Your task to perform on an android device: What's on my calendar tomorrow? Image 0: 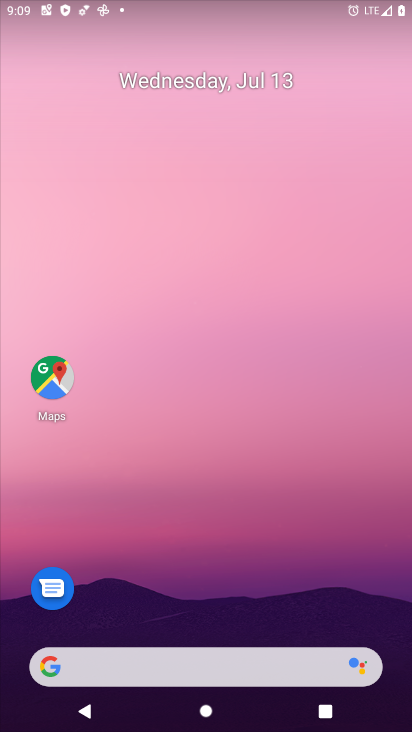
Step 0: drag from (262, 468) to (385, 15)
Your task to perform on an android device: What's on my calendar tomorrow? Image 1: 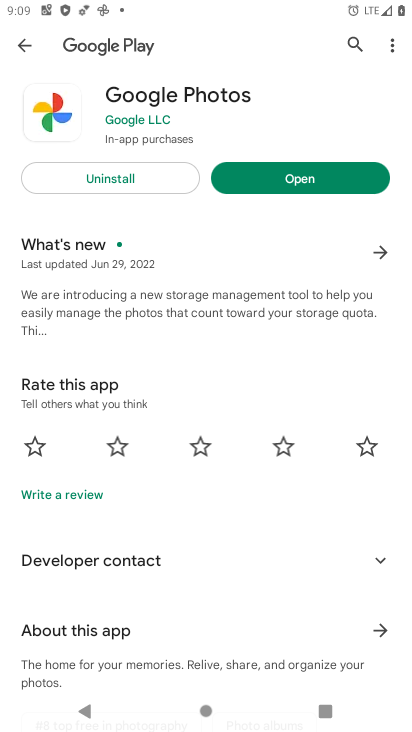
Step 1: press home button
Your task to perform on an android device: What's on my calendar tomorrow? Image 2: 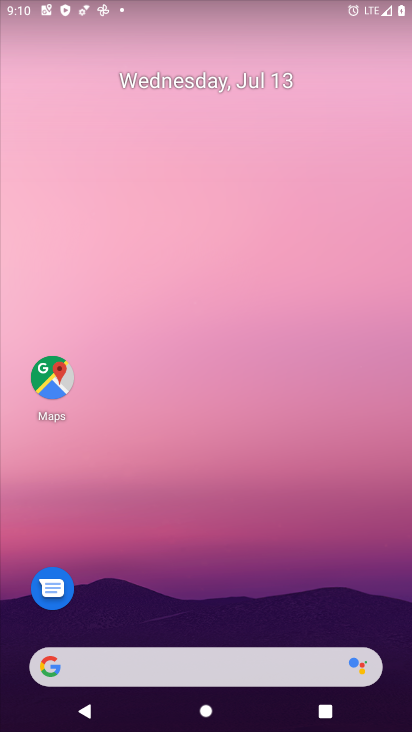
Step 2: drag from (259, 691) to (170, 1)
Your task to perform on an android device: What's on my calendar tomorrow? Image 3: 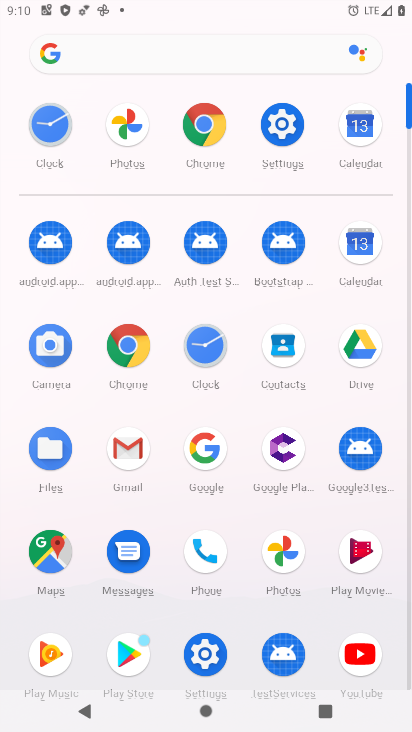
Step 3: click (359, 250)
Your task to perform on an android device: What's on my calendar tomorrow? Image 4: 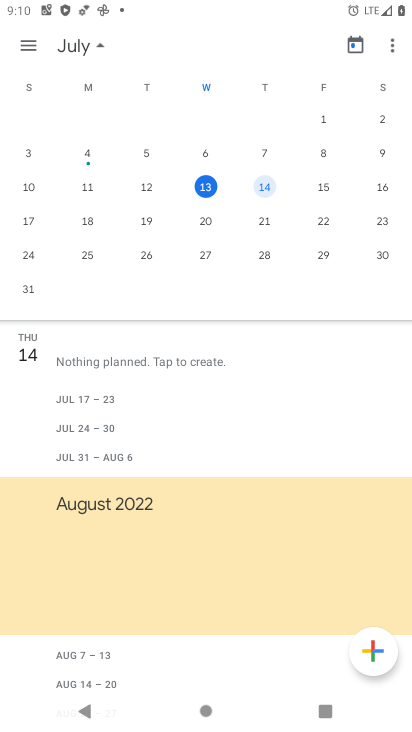
Step 4: click (268, 187)
Your task to perform on an android device: What's on my calendar tomorrow? Image 5: 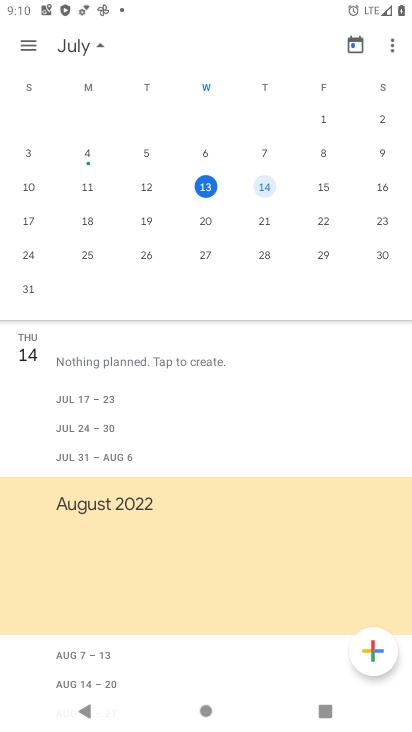
Step 5: task complete